Your task to perform on an android device: turn on the 24-hour format for clock Image 0: 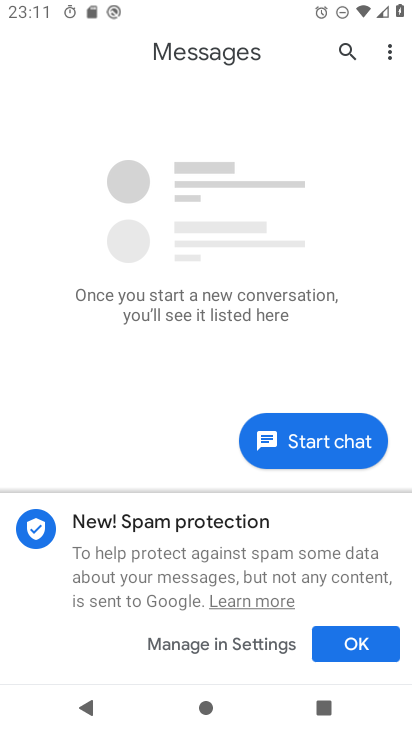
Step 0: press home button
Your task to perform on an android device: turn on the 24-hour format for clock Image 1: 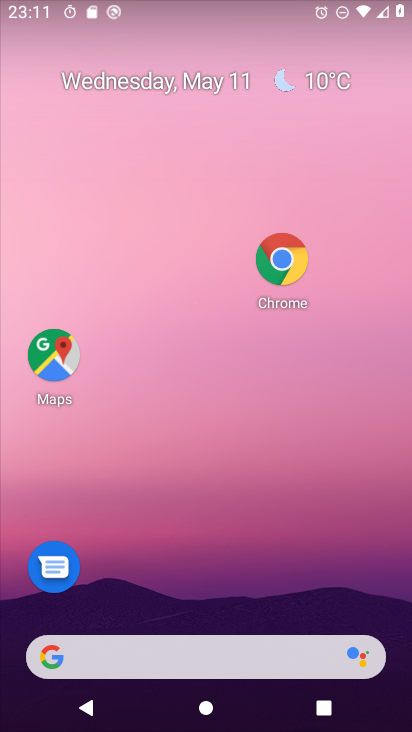
Step 1: drag from (205, 646) to (339, 159)
Your task to perform on an android device: turn on the 24-hour format for clock Image 2: 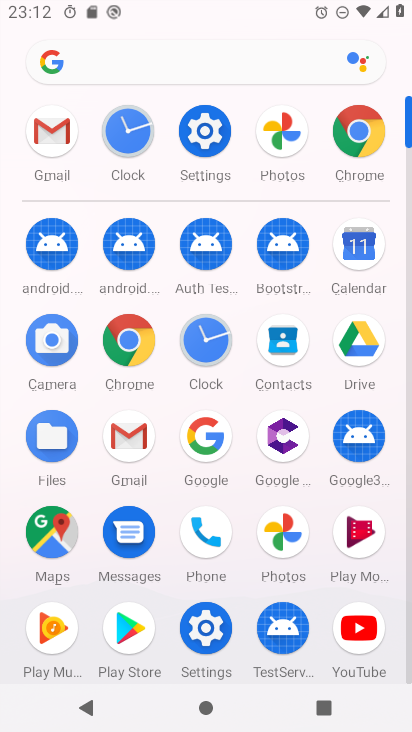
Step 2: click (207, 343)
Your task to perform on an android device: turn on the 24-hour format for clock Image 3: 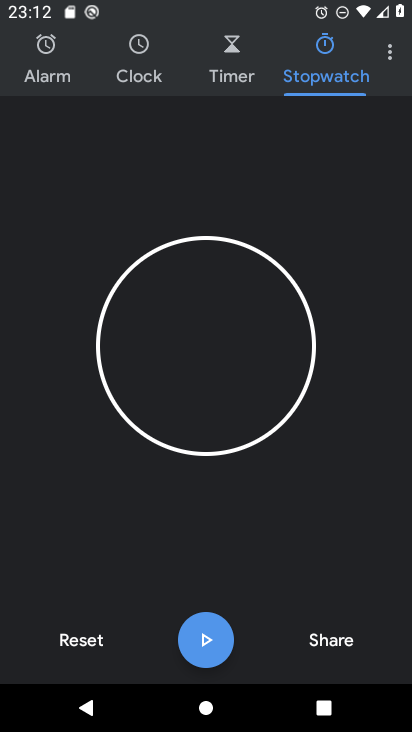
Step 3: click (395, 60)
Your task to perform on an android device: turn on the 24-hour format for clock Image 4: 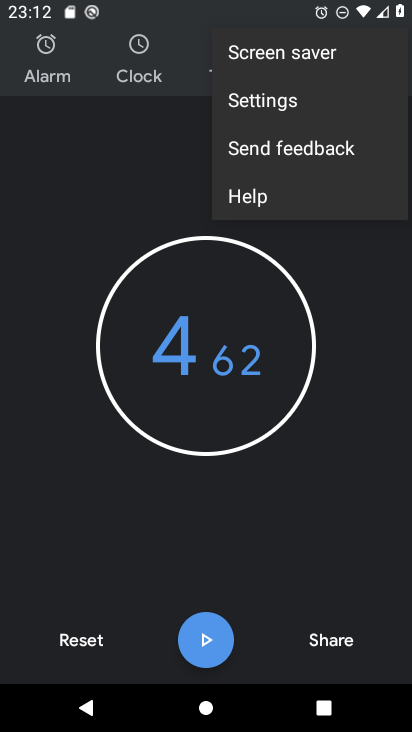
Step 4: click (272, 106)
Your task to perform on an android device: turn on the 24-hour format for clock Image 5: 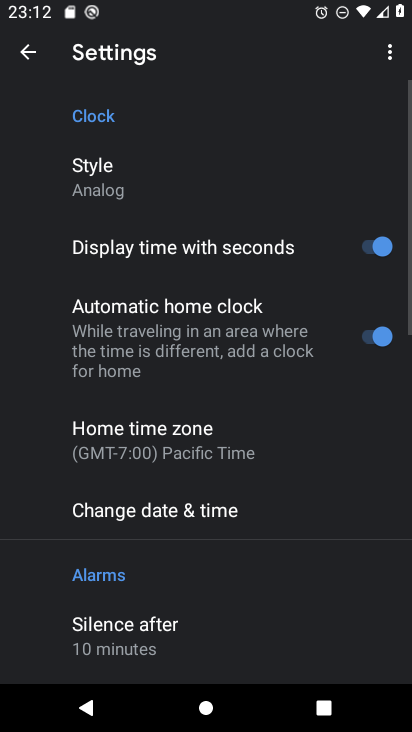
Step 5: click (213, 511)
Your task to perform on an android device: turn on the 24-hour format for clock Image 6: 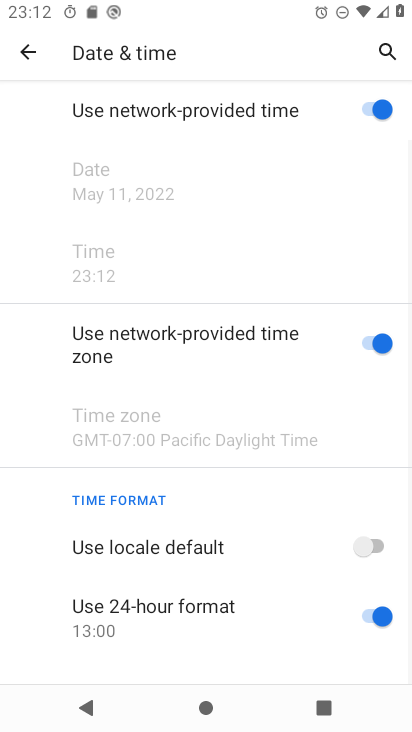
Step 6: task complete